Your task to perform on an android device: Go to ESPN.com Image 0: 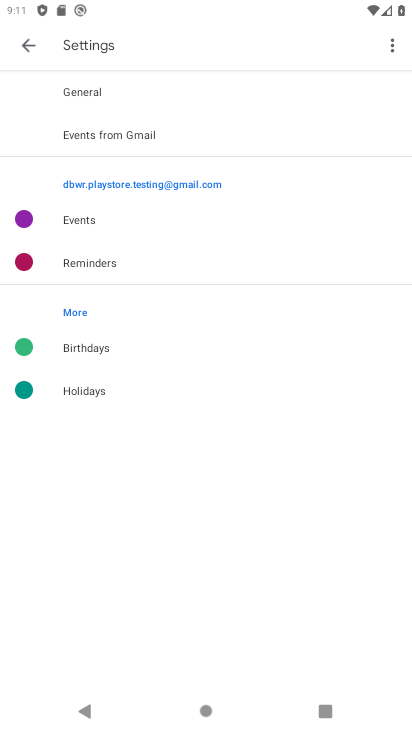
Step 0: press home button
Your task to perform on an android device: Go to ESPN.com Image 1: 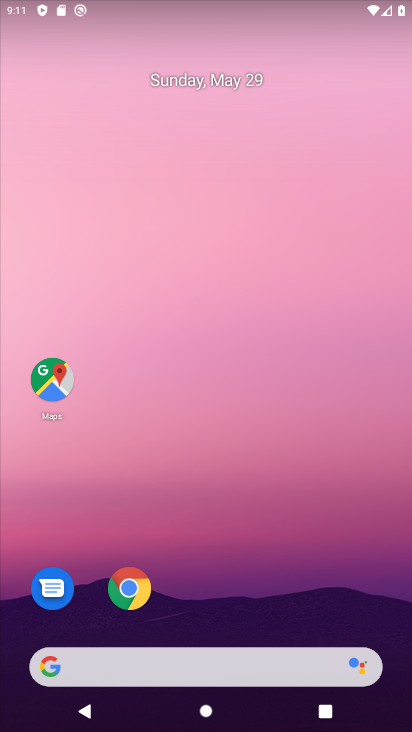
Step 1: click (125, 586)
Your task to perform on an android device: Go to ESPN.com Image 2: 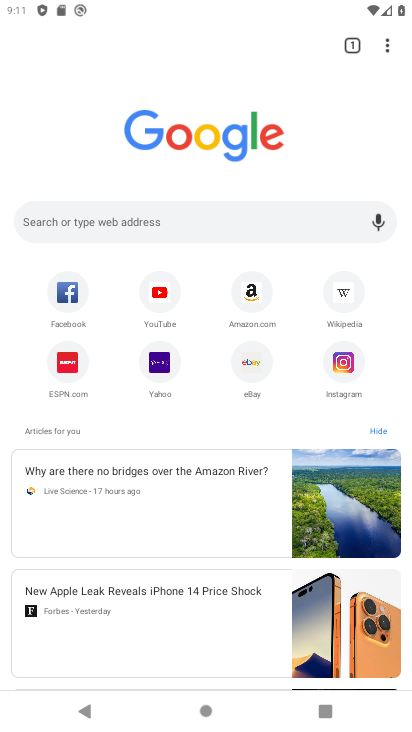
Step 2: click (54, 371)
Your task to perform on an android device: Go to ESPN.com Image 3: 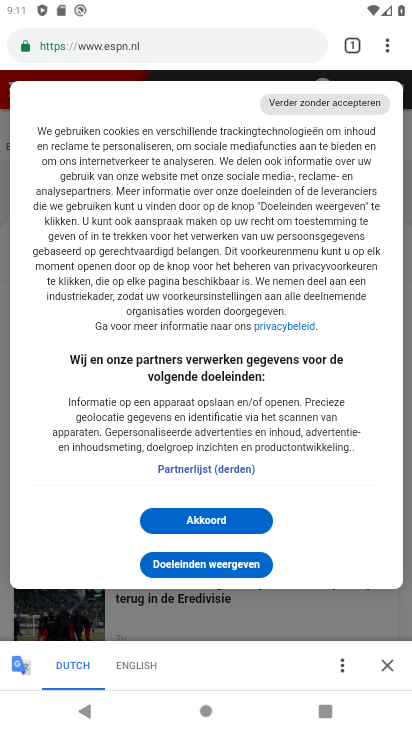
Step 3: click (232, 524)
Your task to perform on an android device: Go to ESPN.com Image 4: 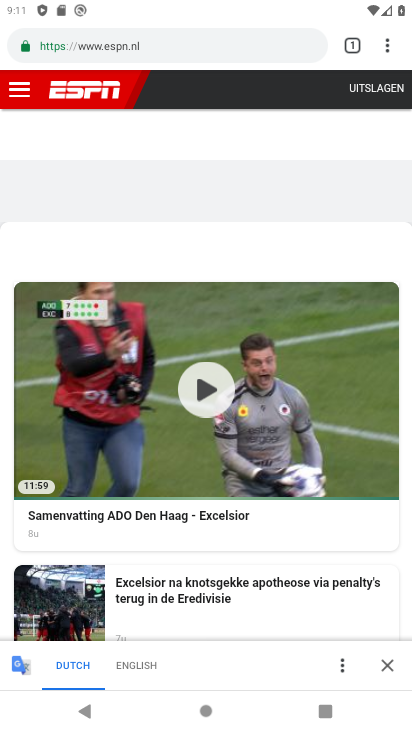
Step 4: task complete